Your task to perform on an android device: Play the last video I watched on Youtube Image 0: 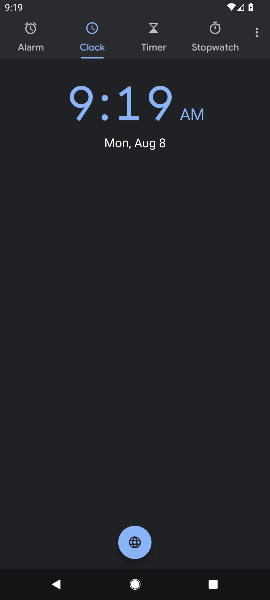
Step 0: press home button
Your task to perform on an android device: Play the last video I watched on Youtube Image 1: 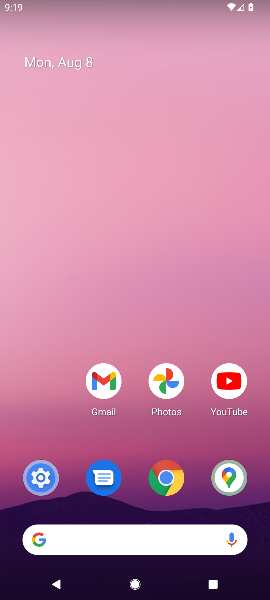
Step 1: drag from (148, 540) to (229, 17)
Your task to perform on an android device: Play the last video I watched on Youtube Image 2: 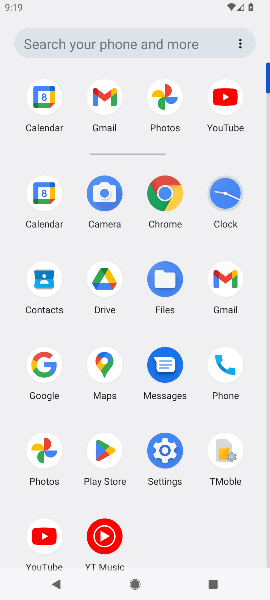
Step 2: click (47, 532)
Your task to perform on an android device: Play the last video I watched on Youtube Image 3: 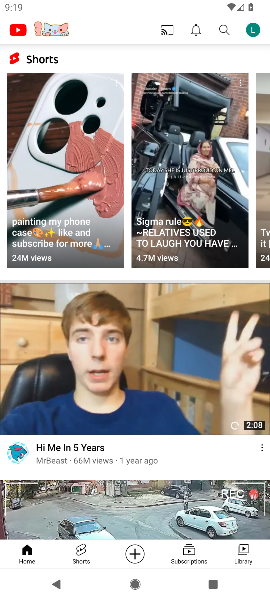
Step 3: click (246, 554)
Your task to perform on an android device: Play the last video I watched on Youtube Image 4: 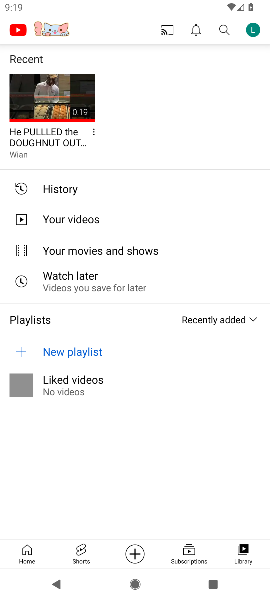
Step 4: click (51, 99)
Your task to perform on an android device: Play the last video I watched on Youtube Image 5: 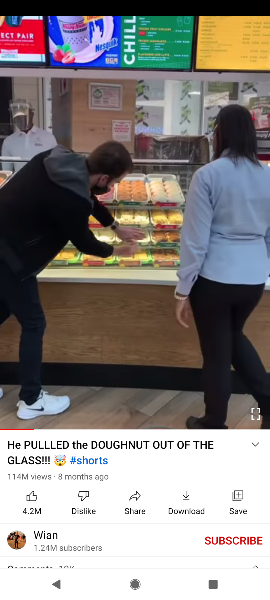
Step 5: click (124, 180)
Your task to perform on an android device: Play the last video I watched on Youtube Image 6: 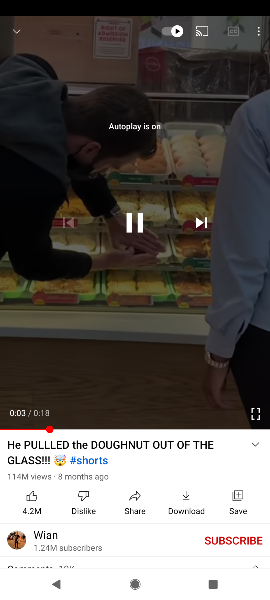
Step 6: click (128, 215)
Your task to perform on an android device: Play the last video I watched on Youtube Image 7: 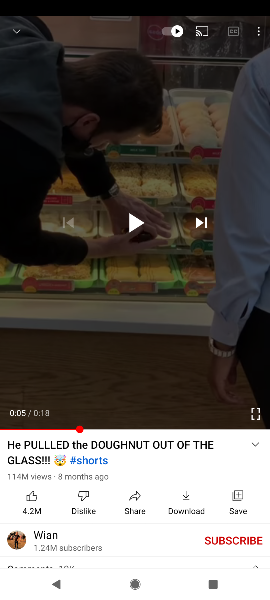
Step 7: task complete